Your task to perform on an android device: turn off location Image 0: 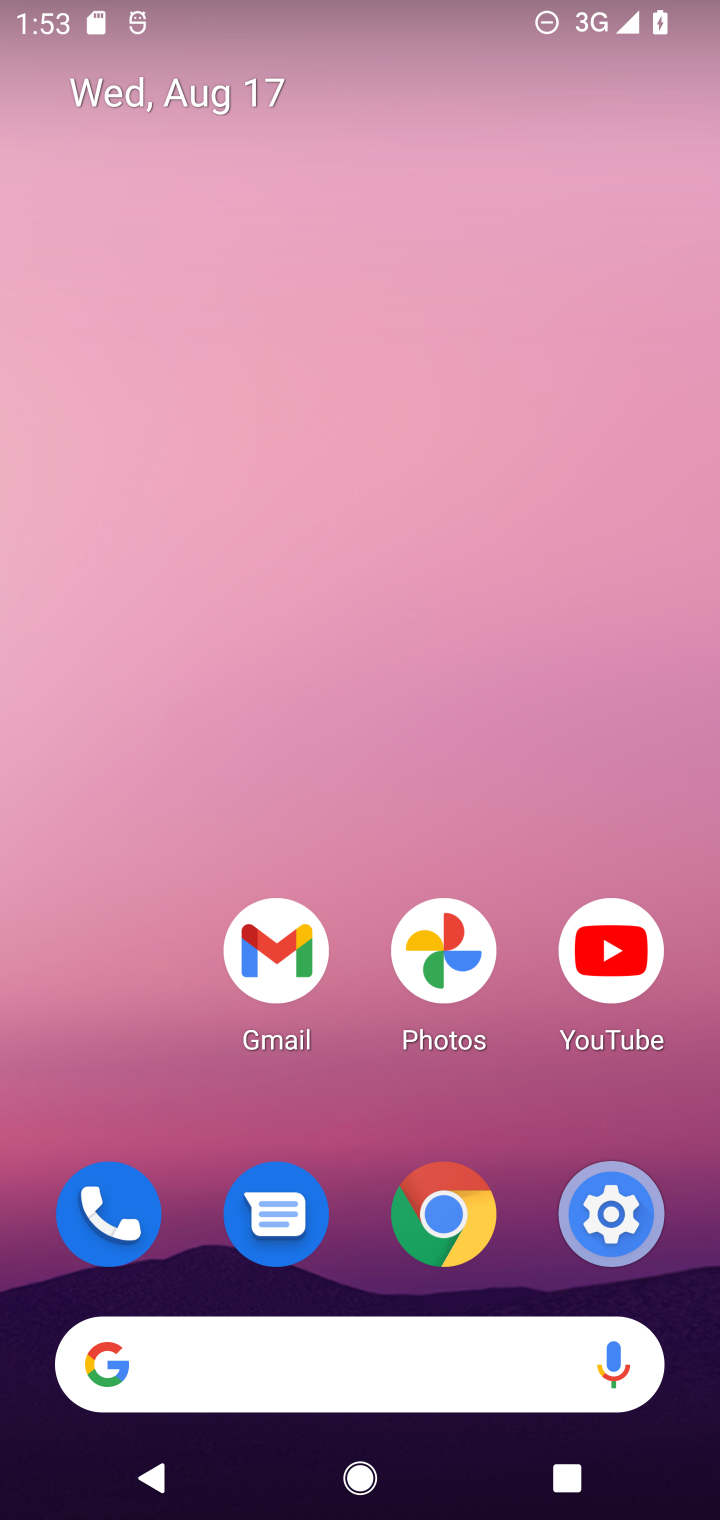
Step 0: click (615, 1215)
Your task to perform on an android device: turn off location Image 1: 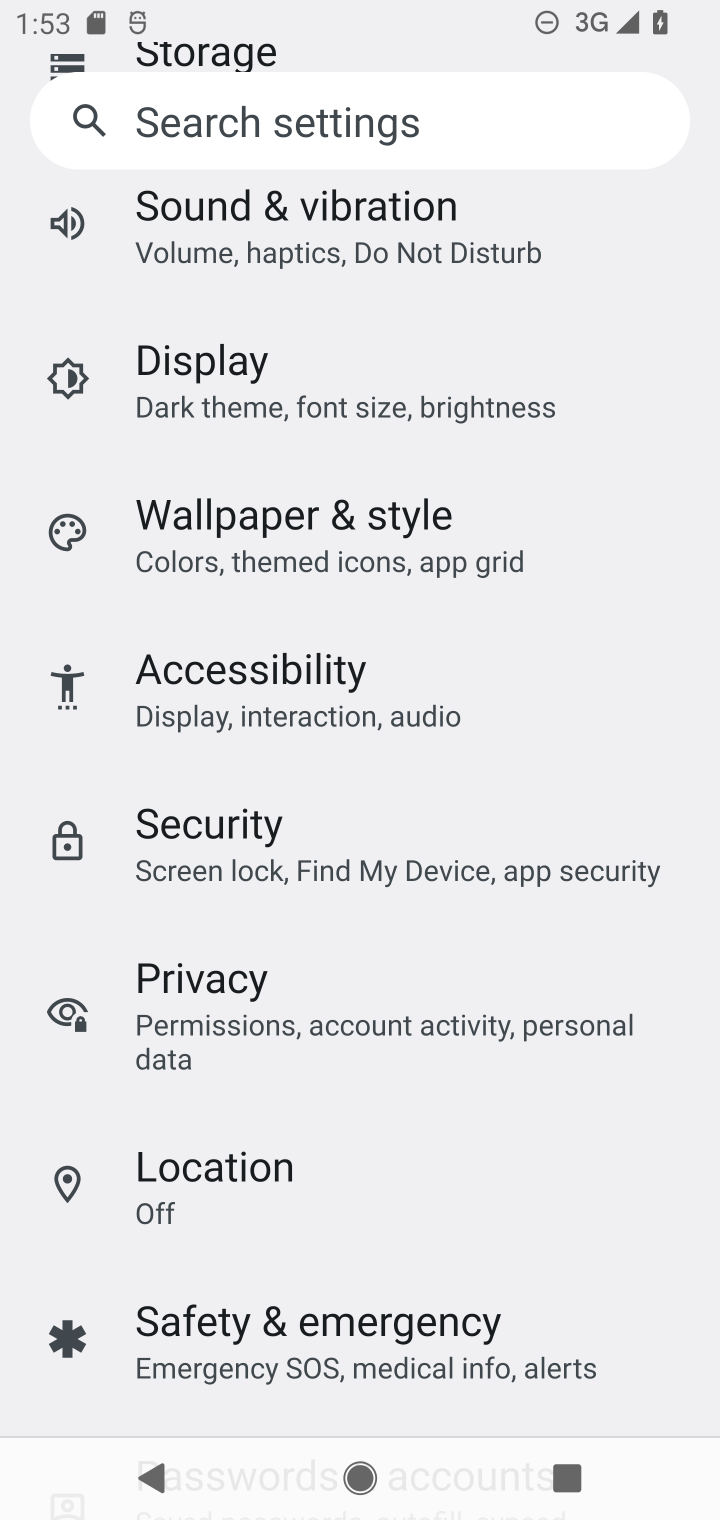
Step 1: click (223, 1164)
Your task to perform on an android device: turn off location Image 2: 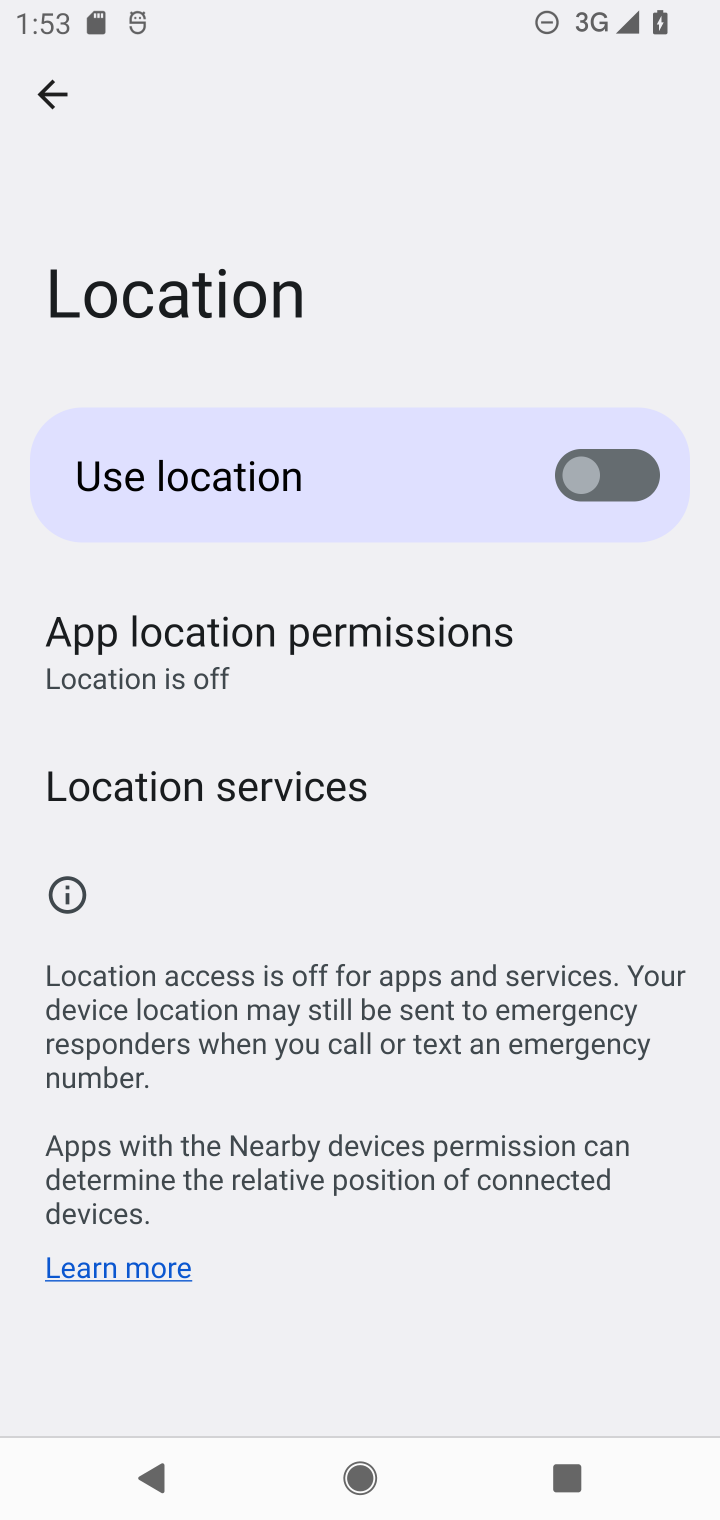
Step 2: task complete